Your task to perform on an android device: show emergency info Image 0: 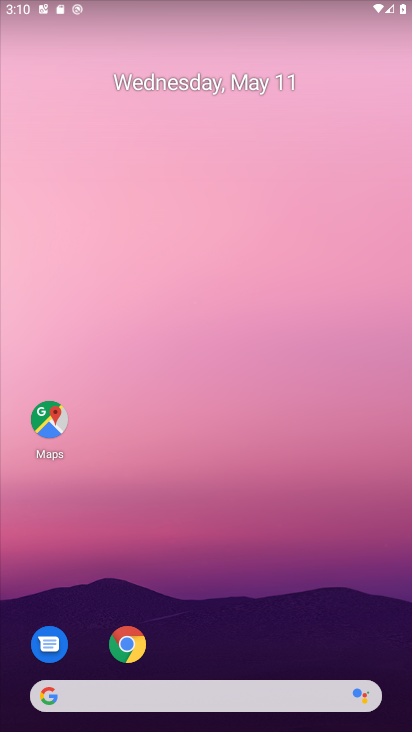
Step 0: drag from (179, 674) to (164, 52)
Your task to perform on an android device: show emergency info Image 1: 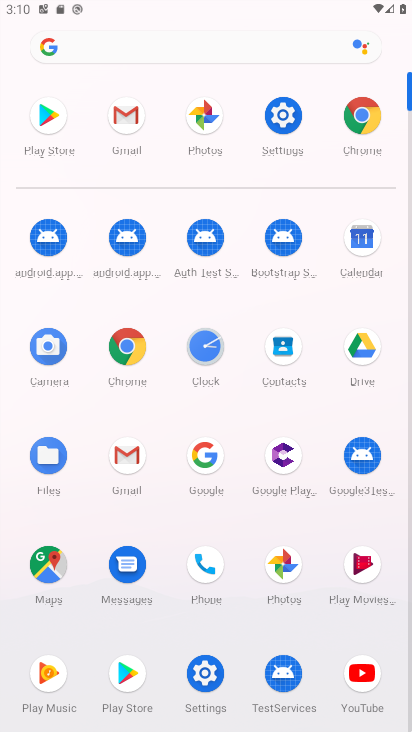
Step 1: click (201, 667)
Your task to perform on an android device: show emergency info Image 2: 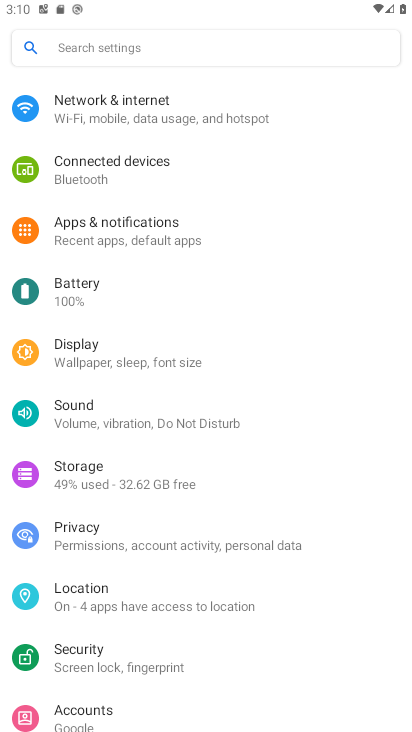
Step 2: drag from (220, 617) to (125, 11)
Your task to perform on an android device: show emergency info Image 3: 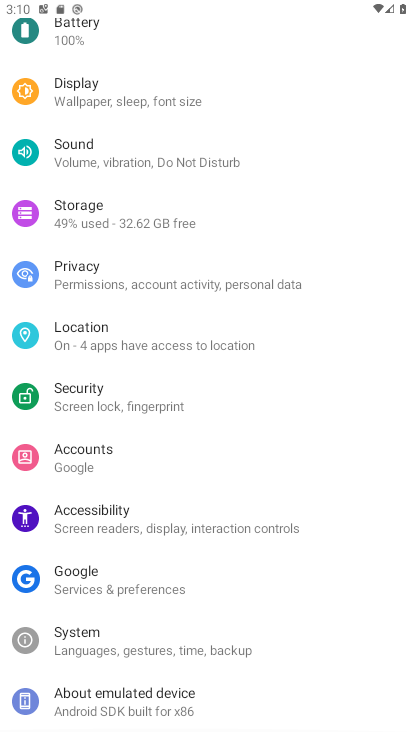
Step 3: click (131, 706)
Your task to perform on an android device: show emergency info Image 4: 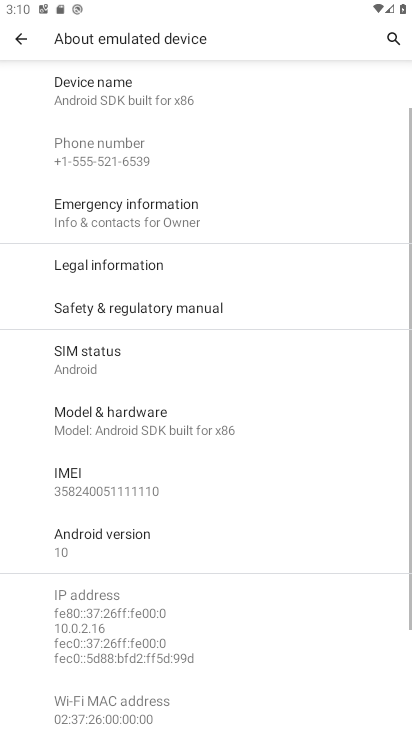
Step 4: click (103, 219)
Your task to perform on an android device: show emergency info Image 5: 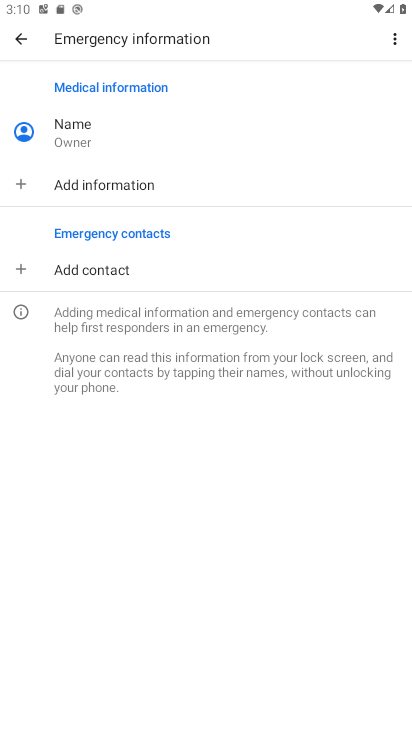
Step 5: task complete